Your task to perform on an android device: toggle notification dots Image 0: 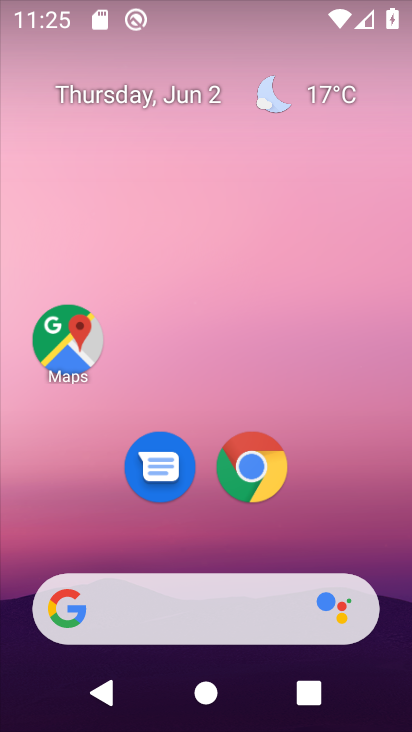
Step 0: click (326, 390)
Your task to perform on an android device: toggle notification dots Image 1: 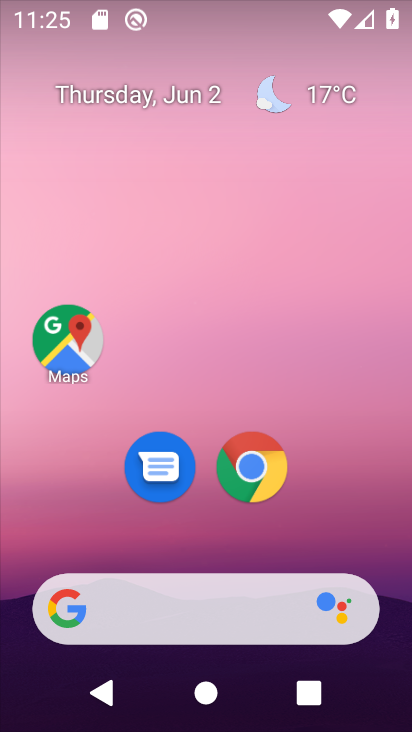
Step 1: drag from (197, 646) to (165, 253)
Your task to perform on an android device: toggle notification dots Image 2: 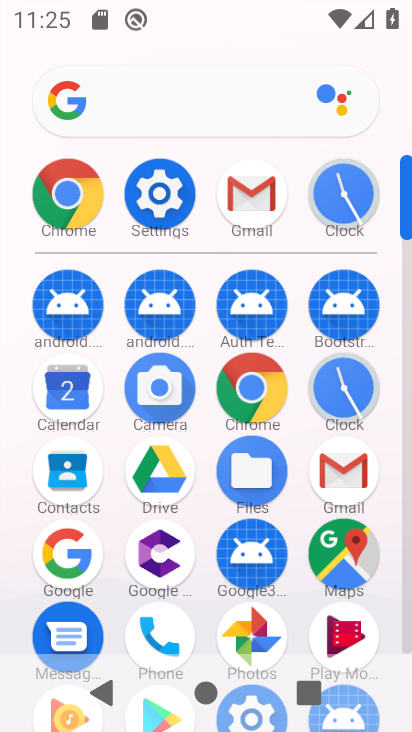
Step 2: click (159, 187)
Your task to perform on an android device: toggle notification dots Image 3: 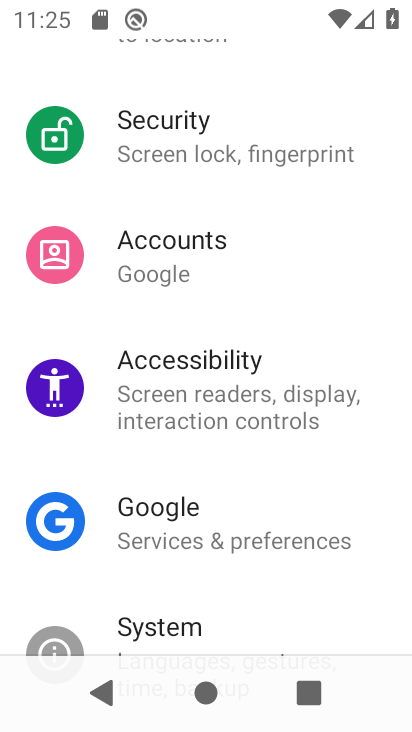
Step 3: drag from (188, 105) to (192, 440)
Your task to perform on an android device: toggle notification dots Image 4: 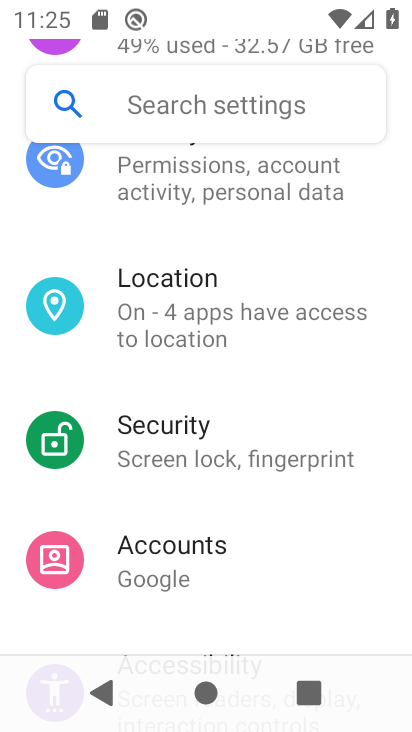
Step 4: click (186, 99)
Your task to perform on an android device: toggle notification dots Image 5: 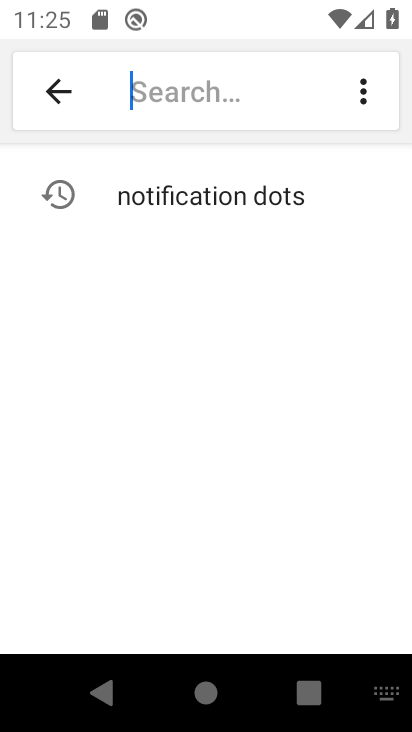
Step 5: click (188, 88)
Your task to perform on an android device: toggle notification dots Image 6: 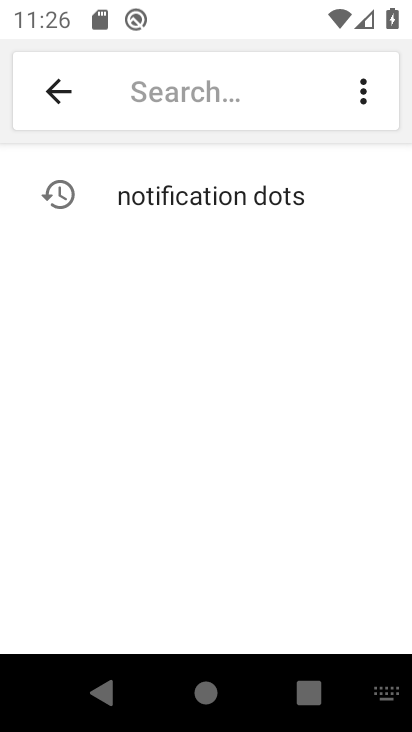
Step 6: type " notification dots"
Your task to perform on an android device: toggle notification dots Image 7: 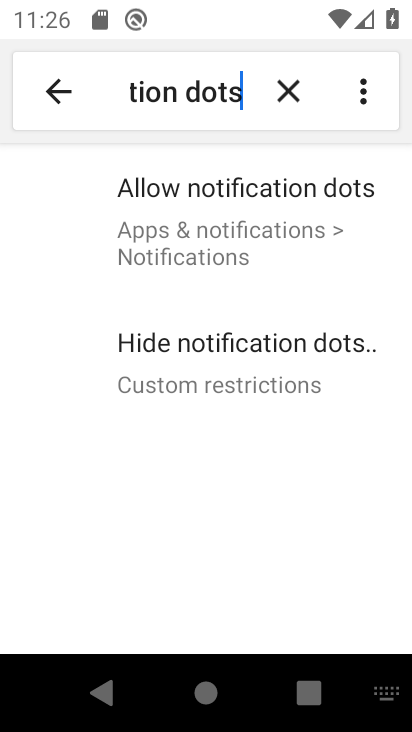
Step 7: click (235, 194)
Your task to perform on an android device: toggle notification dots Image 8: 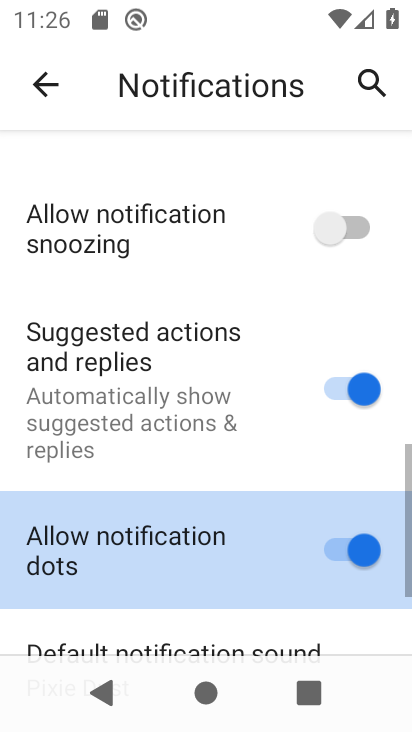
Step 8: click (327, 538)
Your task to perform on an android device: toggle notification dots Image 9: 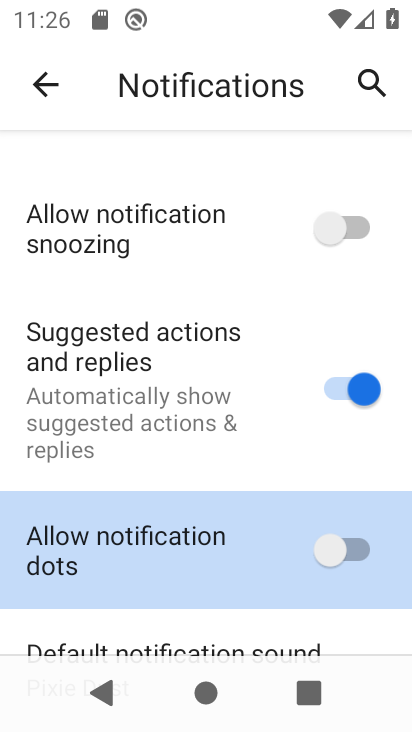
Step 9: task complete